Your task to perform on an android device: Show me popular videos on Youtube Image 0: 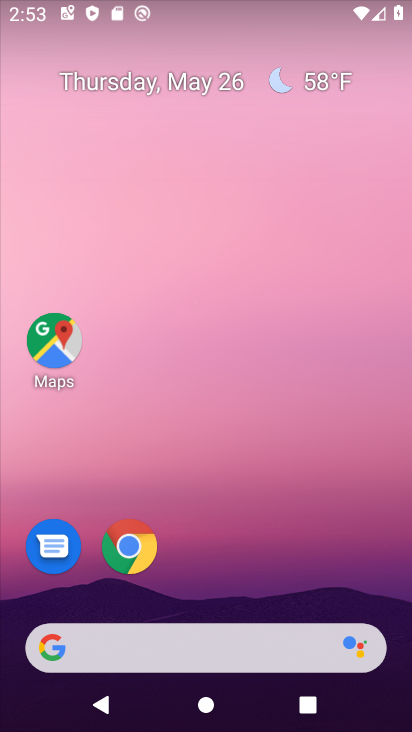
Step 0: drag from (205, 588) to (207, 36)
Your task to perform on an android device: Show me popular videos on Youtube Image 1: 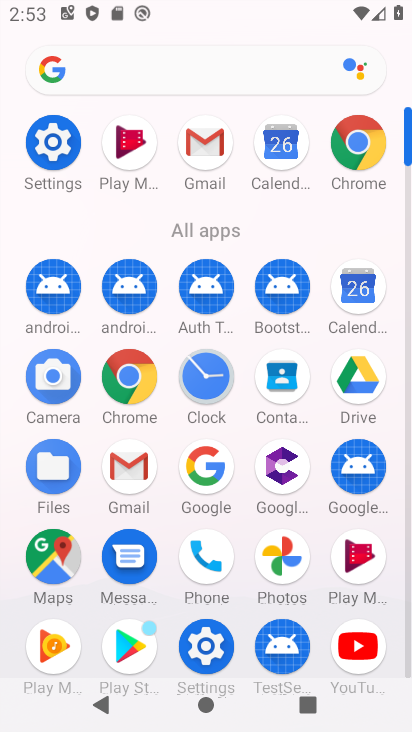
Step 1: click (356, 639)
Your task to perform on an android device: Show me popular videos on Youtube Image 2: 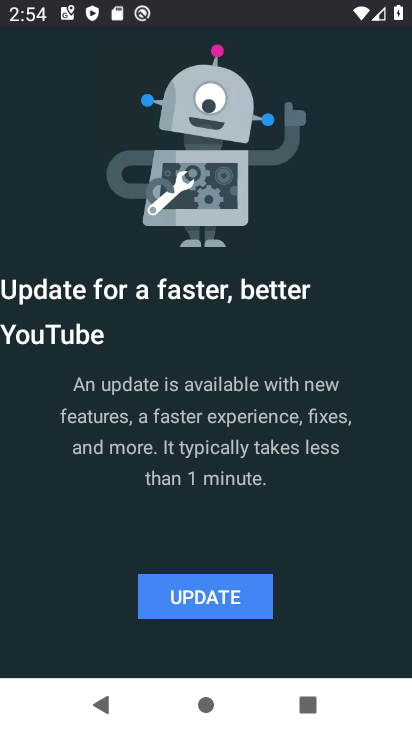
Step 2: click (200, 590)
Your task to perform on an android device: Show me popular videos on Youtube Image 3: 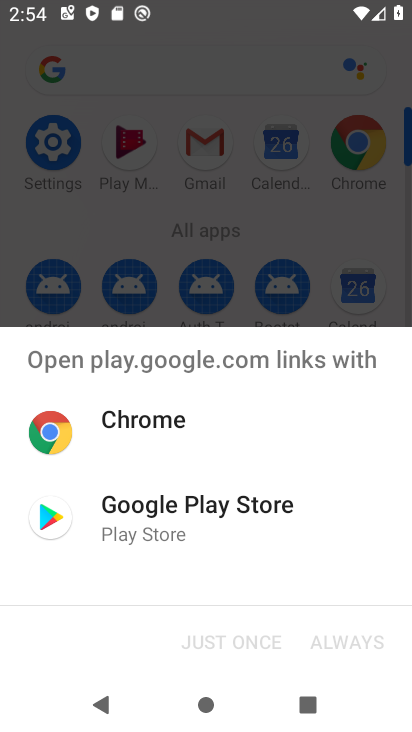
Step 3: click (135, 536)
Your task to perform on an android device: Show me popular videos on Youtube Image 4: 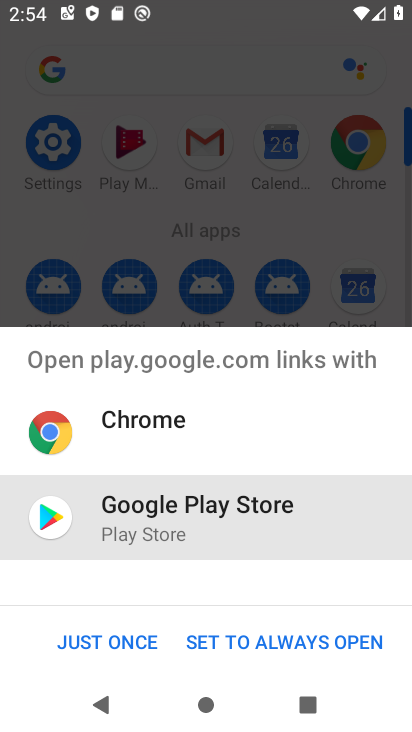
Step 4: click (114, 642)
Your task to perform on an android device: Show me popular videos on Youtube Image 5: 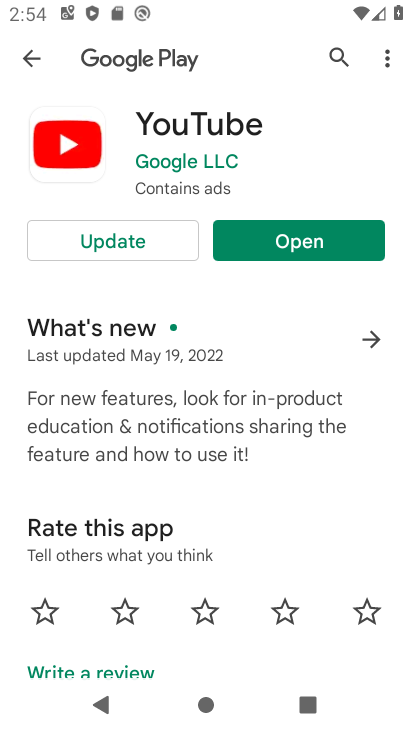
Step 5: click (118, 247)
Your task to perform on an android device: Show me popular videos on Youtube Image 6: 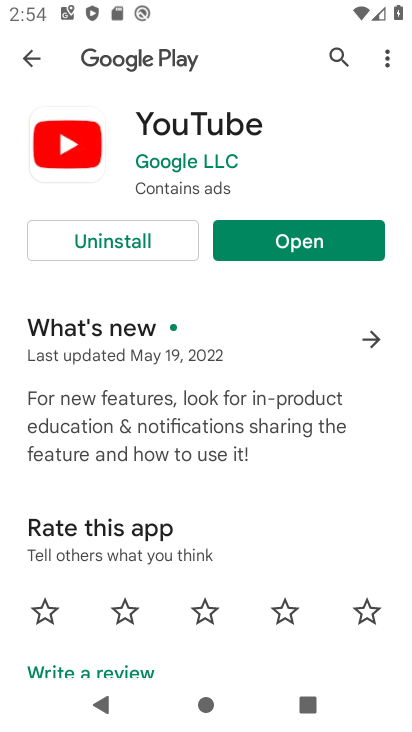
Step 6: click (293, 246)
Your task to perform on an android device: Show me popular videos on Youtube Image 7: 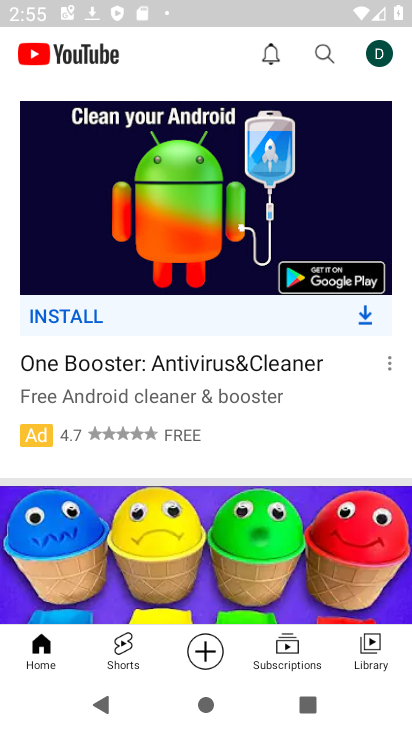
Step 7: drag from (127, 566) to (126, 265)
Your task to perform on an android device: Show me popular videos on Youtube Image 8: 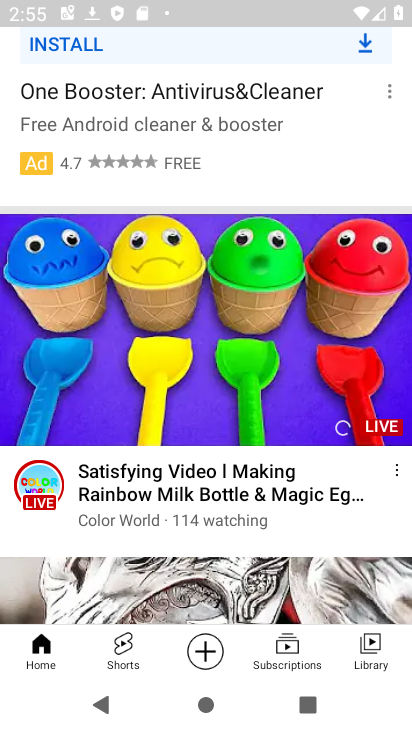
Step 8: drag from (98, 307) to (152, 670)
Your task to perform on an android device: Show me popular videos on Youtube Image 9: 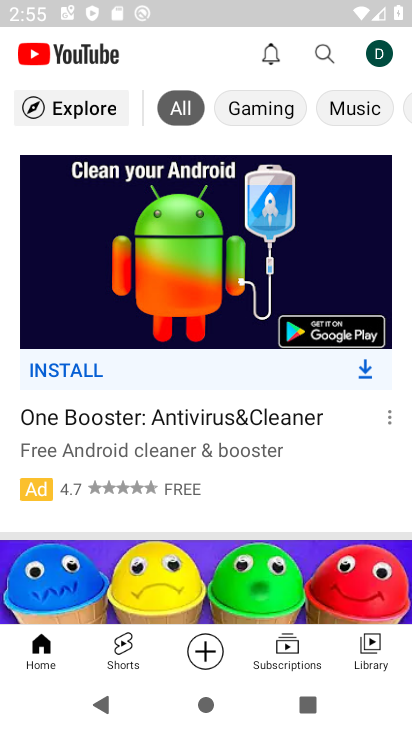
Step 9: click (67, 110)
Your task to perform on an android device: Show me popular videos on Youtube Image 10: 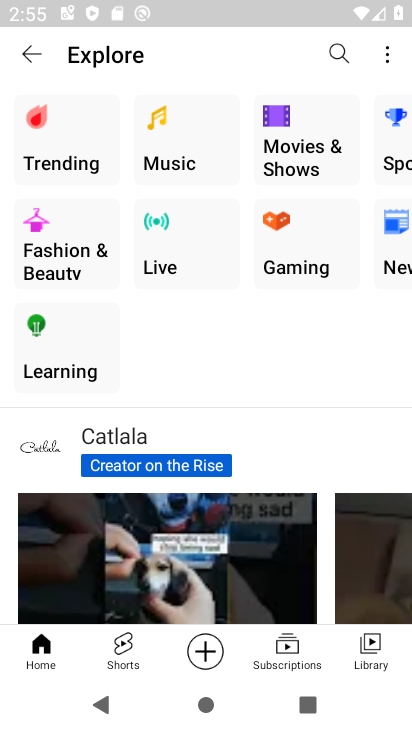
Step 10: click (67, 125)
Your task to perform on an android device: Show me popular videos on Youtube Image 11: 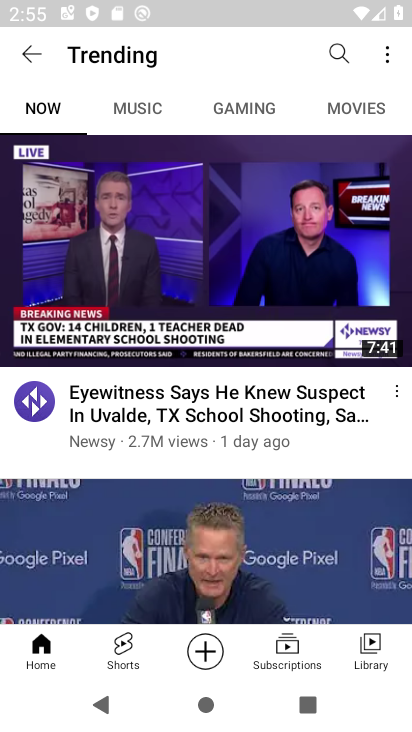
Step 11: task complete